Your task to perform on an android device: Go to Maps Image 0: 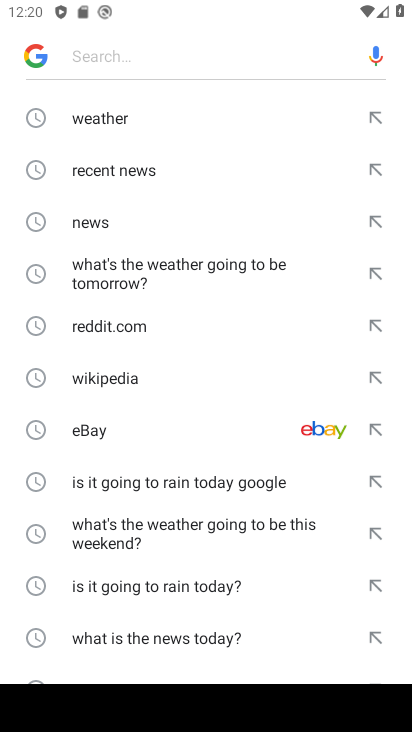
Step 0: press home button
Your task to perform on an android device: Go to Maps Image 1: 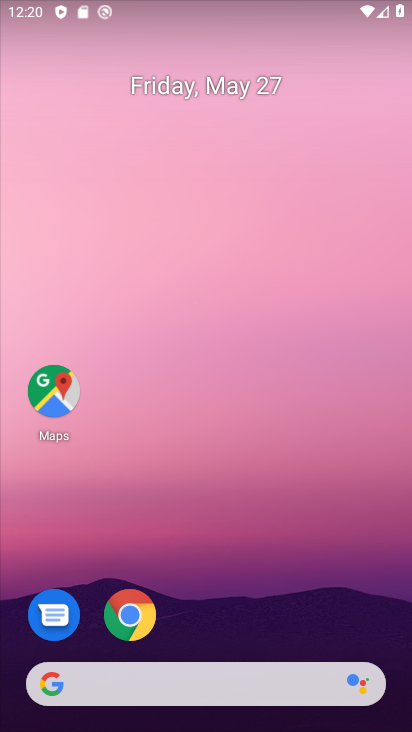
Step 1: drag from (243, 574) to (228, 131)
Your task to perform on an android device: Go to Maps Image 2: 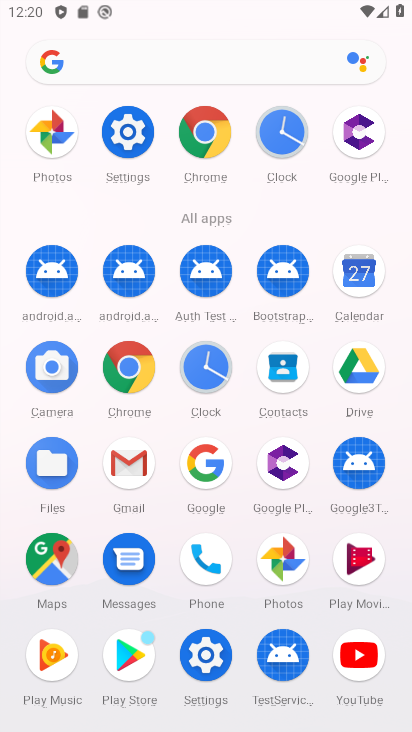
Step 2: click (40, 574)
Your task to perform on an android device: Go to Maps Image 3: 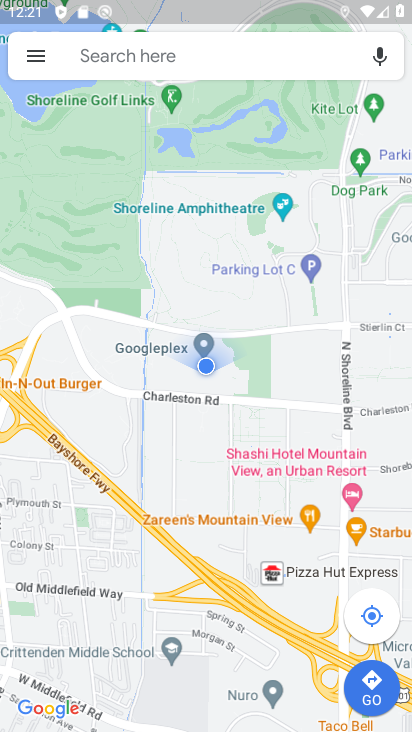
Step 3: task complete